Your task to perform on an android device: turn on wifi Image 0: 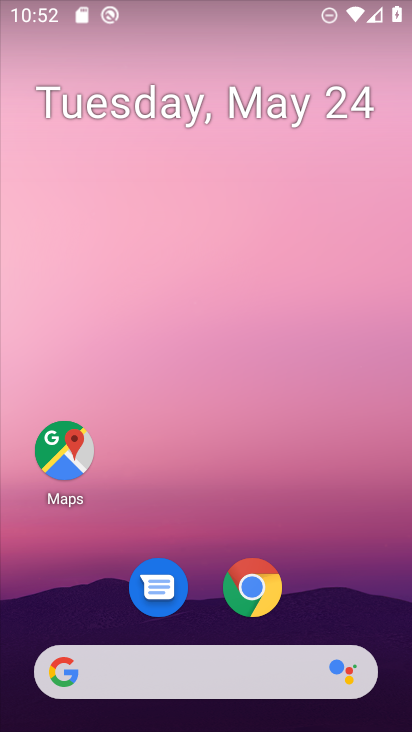
Step 0: drag from (361, 454) to (344, 158)
Your task to perform on an android device: turn on wifi Image 1: 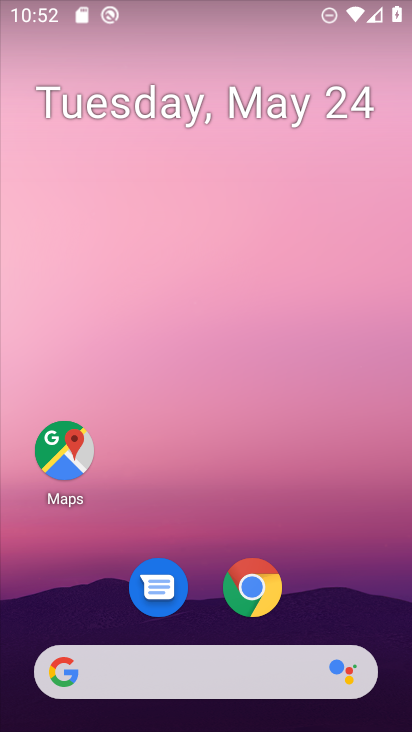
Step 1: task complete